Your task to perform on an android device: Open Google Image 0: 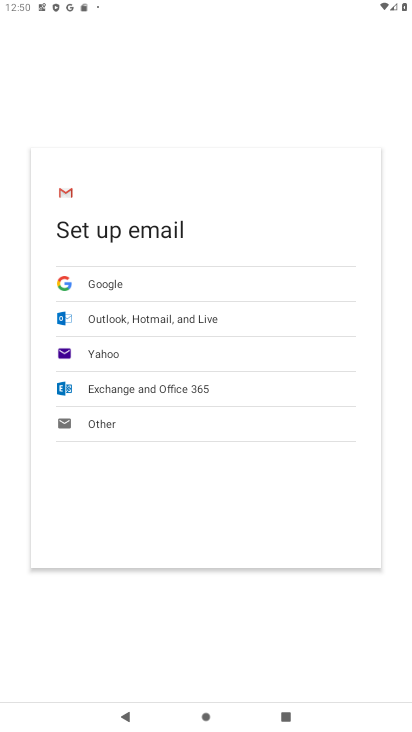
Step 0: drag from (220, 593) to (268, 265)
Your task to perform on an android device: Open Google Image 1: 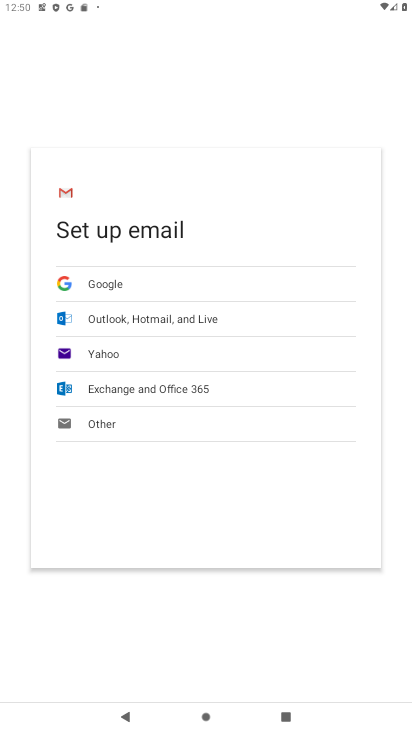
Step 1: press home button
Your task to perform on an android device: Open Google Image 2: 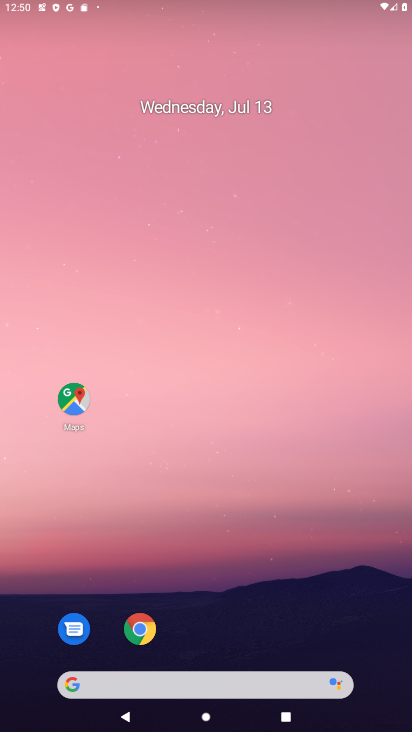
Step 2: drag from (274, 559) to (267, 256)
Your task to perform on an android device: Open Google Image 3: 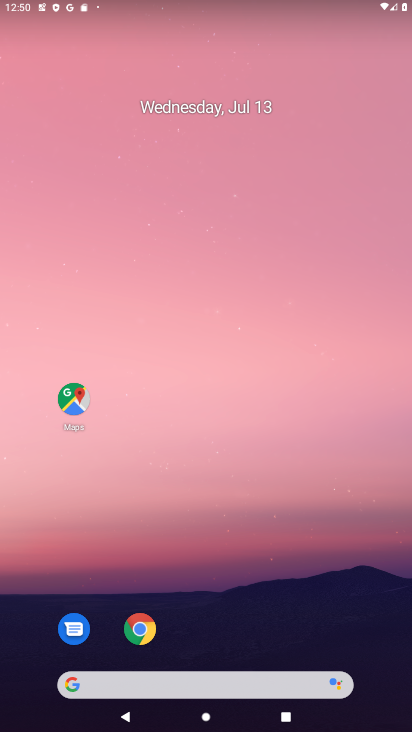
Step 3: drag from (230, 568) to (242, 276)
Your task to perform on an android device: Open Google Image 4: 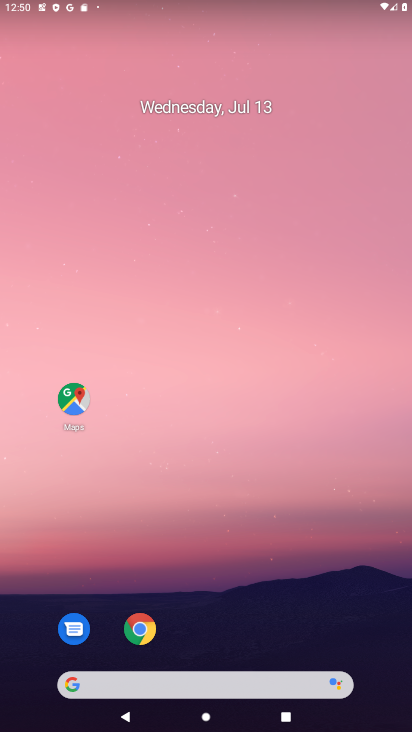
Step 4: drag from (235, 599) to (243, 265)
Your task to perform on an android device: Open Google Image 5: 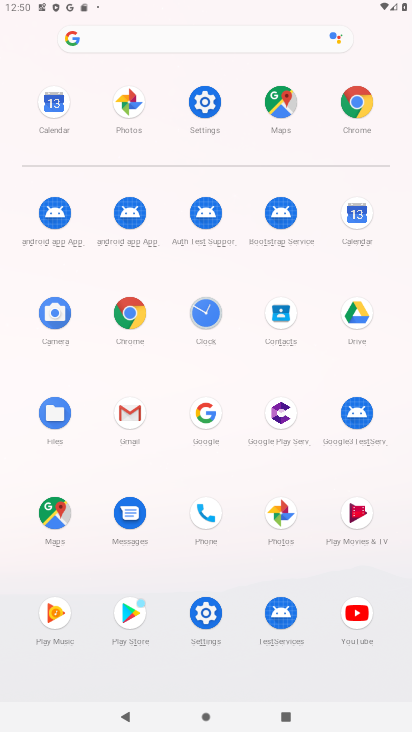
Step 5: click (203, 418)
Your task to perform on an android device: Open Google Image 6: 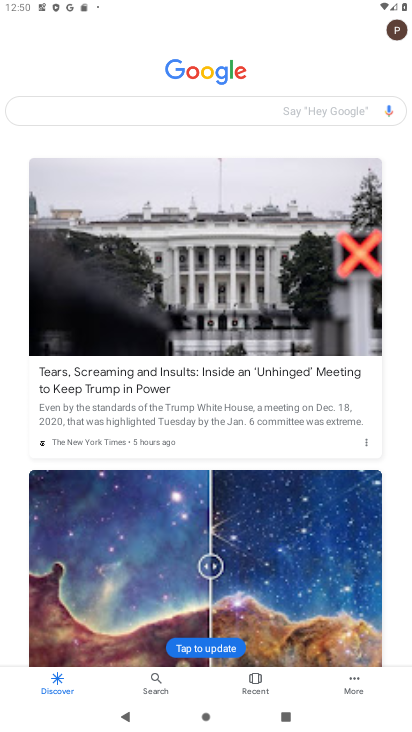
Step 6: task complete